Your task to perform on an android device: turn on improve location accuracy Image 0: 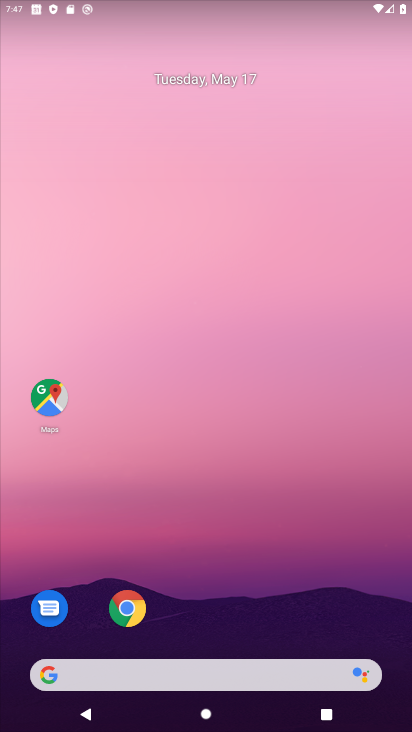
Step 0: drag from (363, 614) to (301, 175)
Your task to perform on an android device: turn on improve location accuracy Image 1: 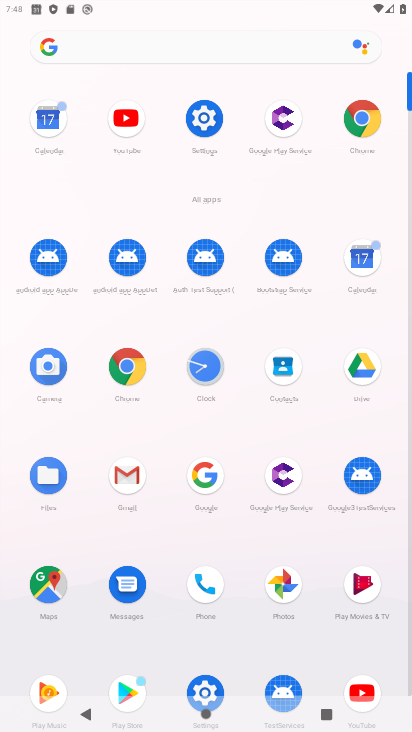
Step 1: click (213, 121)
Your task to perform on an android device: turn on improve location accuracy Image 2: 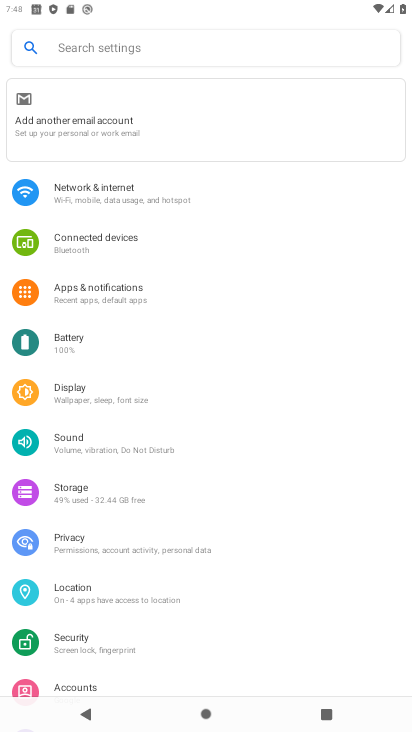
Step 2: drag from (232, 637) to (200, 250)
Your task to perform on an android device: turn on improve location accuracy Image 3: 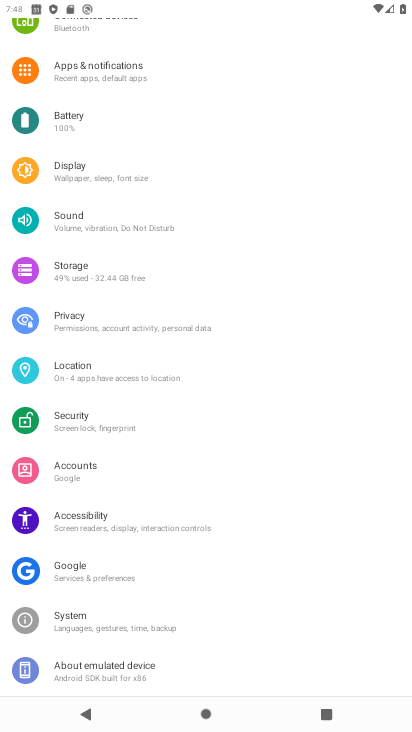
Step 3: click (73, 372)
Your task to perform on an android device: turn on improve location accuracy Image 4: 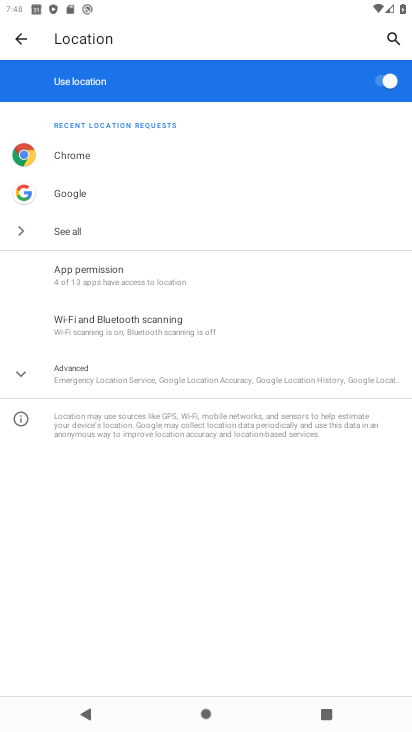
Step 4: click (153, 370)
Your task to perform on an android device: turn on improve location accuracy Image 5: 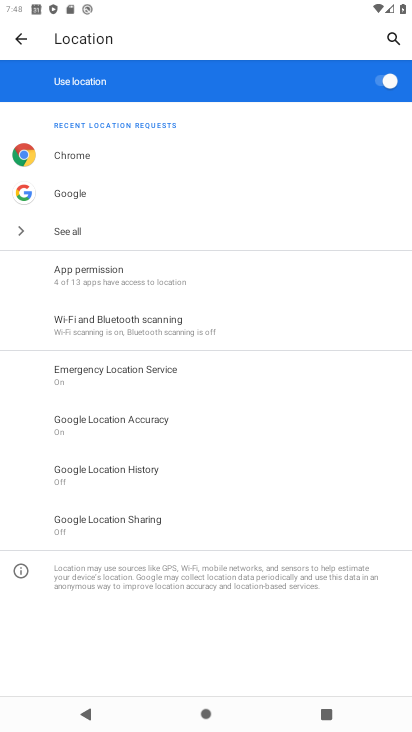
Step 5: click (137, 418)
Your task to perform on an android device: turn on improve location accuracy Image 6: 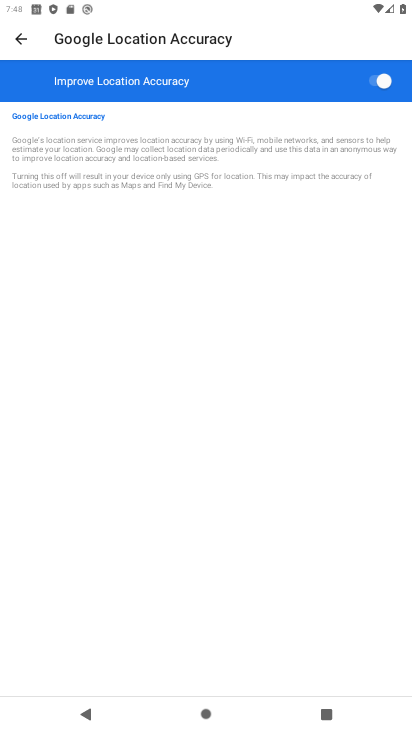
Step 6: task complete